Your task to perform on an android device: change alarm snooze length Image 0: 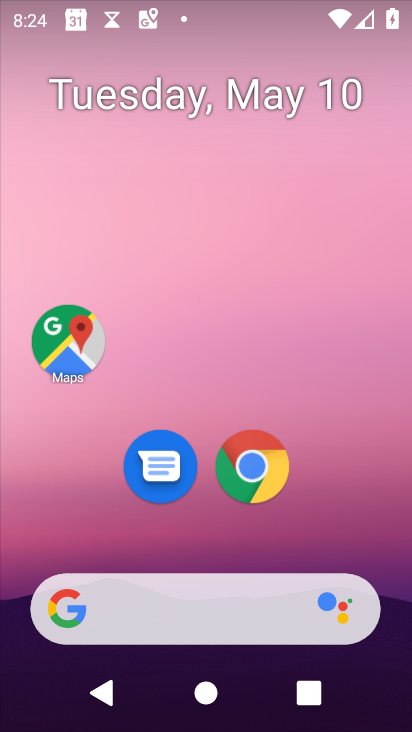
Step 0: drag from (259, 539) to (237, 2)
Your task to perform on an android device: change alarm snooze length Image 1: 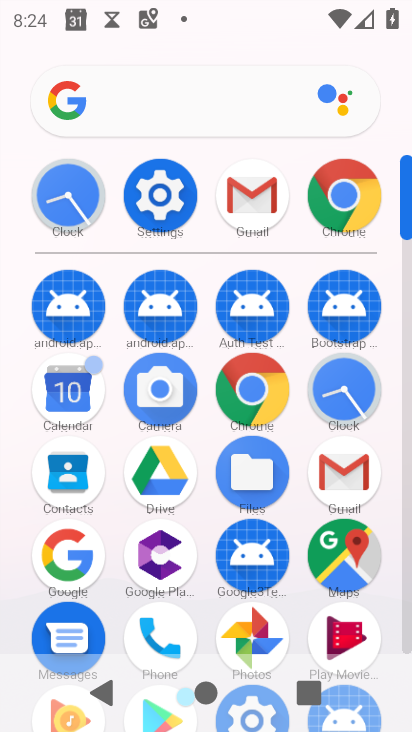
Step 1: click (67, 205)
Your task to perform on an android device: change alarm snooze length Image 2: 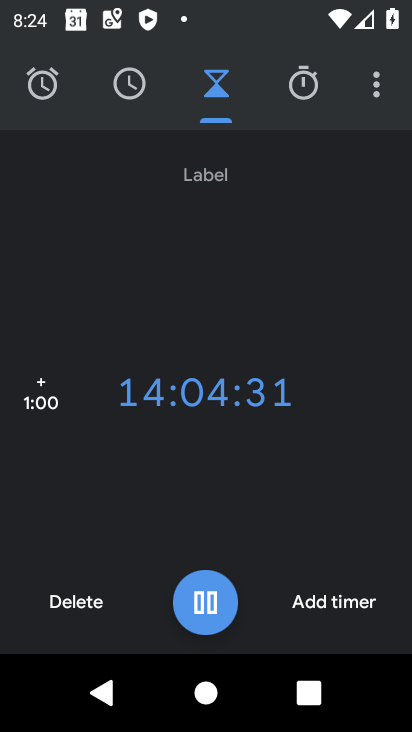
Step 2: click (373, 93)
Your task to perform on an android device: change alarm snooze length Image 3: 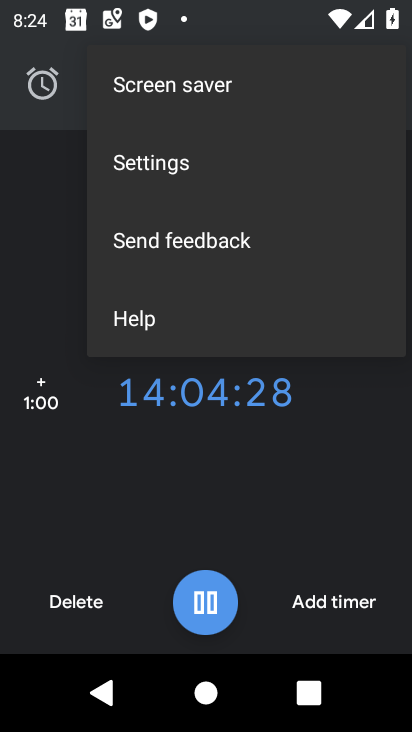
Step 3: click (221, 156)
Your task to perform on an android device: change alarm snooze length Image 4: 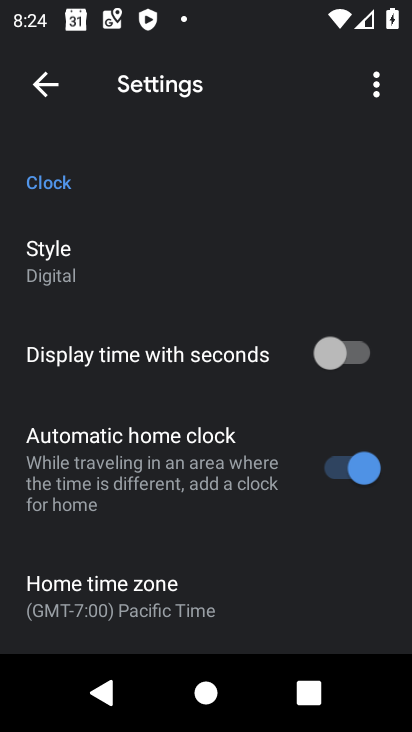
Step 4: drag from (247, 519) to (258, 324)
Your task to perform on an android device: change alarm snooze length Image 5: 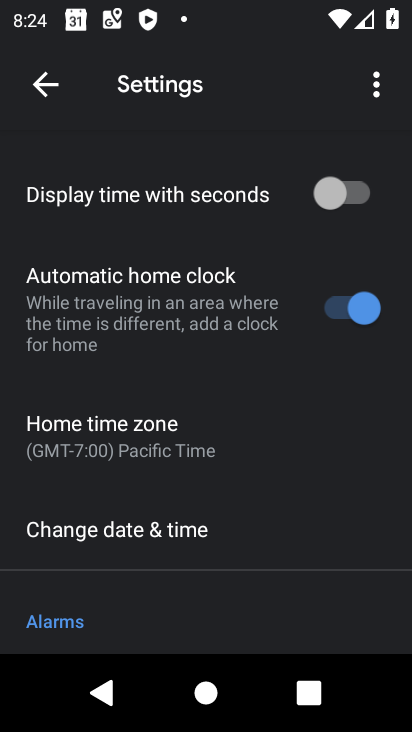
Step 5: drag from (180, 597) to (211, 381)
Your task to perform on an android device: change alarm snooze length Image 6: 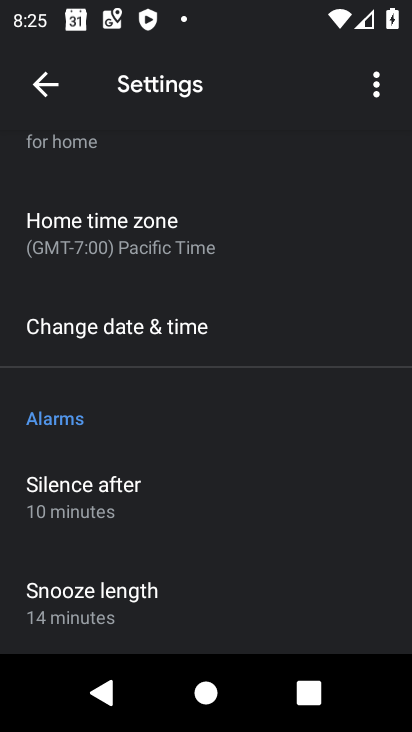
Step 6: click (174, 575)
Your task to perform on an android device: change alarm snooze length Image 7: 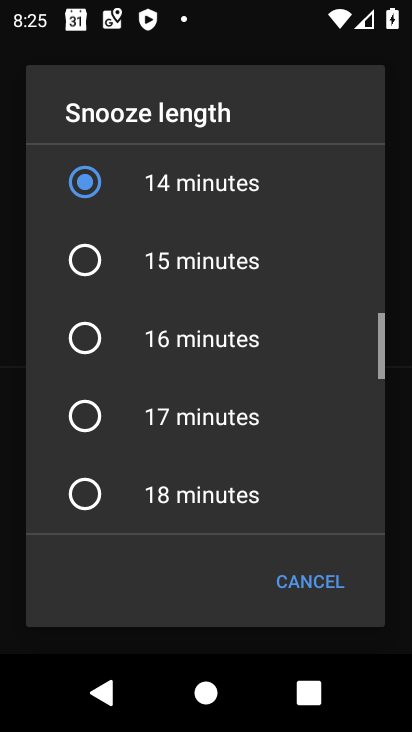
Step 7: click (188, 516)
Your task to perform on an android device: change alarm snooze length Image 8: 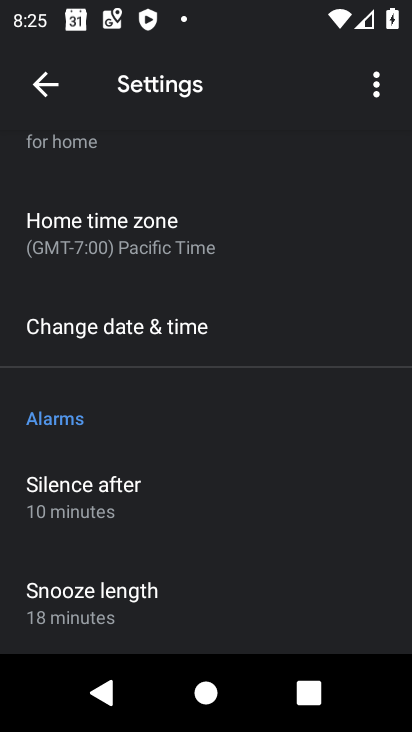
Step 8: task complete